Your task to perform on an android device: turn on translation in the chrome app Image 0: 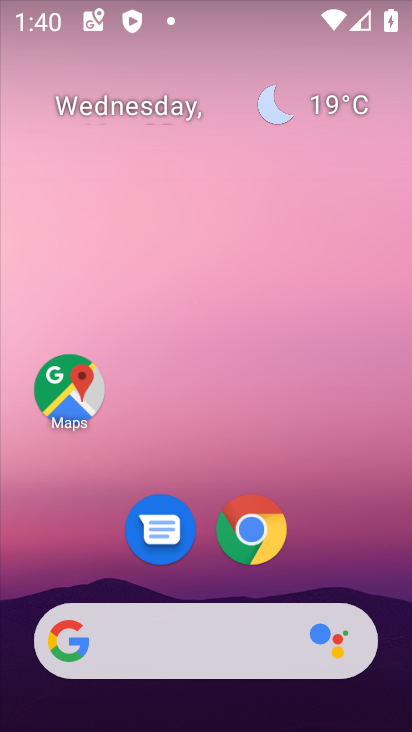
Step 0: click (207, 531)
Your task to perform on an android device: turn on translation in the chrome app Image 1: 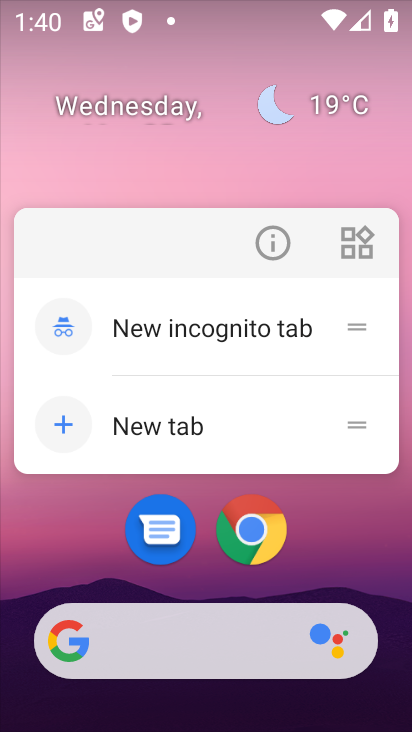
Step 1: click (239, 535)
Your task to perform on an android device: turn on translation in the chrome app Image 2: 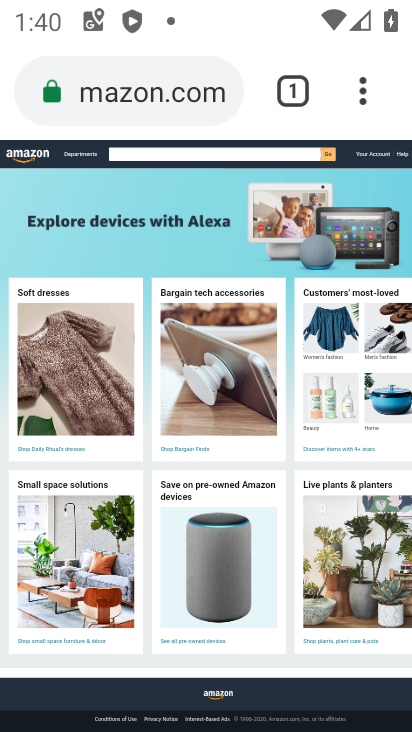
Step 2: drag from (361, 86) to (211, 590)
Your task to perform on an android device: turn on translation in the chrome app Image 3: 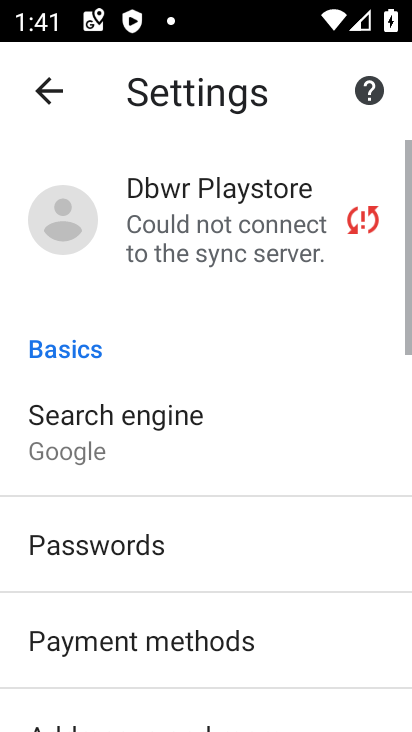
Step 3: drag from (172, 623) to (270, 196)
Your task to perform on an android device: turn on translation in the chrome app Image 4: 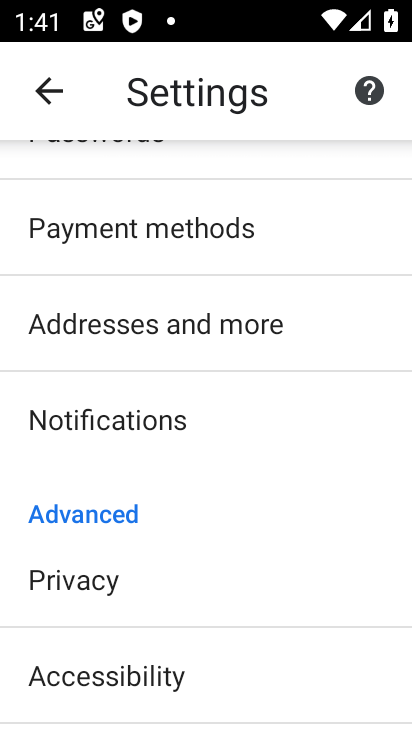
Step 4: drag from (117, 650) to (206, 308)
Your task to perform on an android device: turn on translation in the chrome app Image 5: 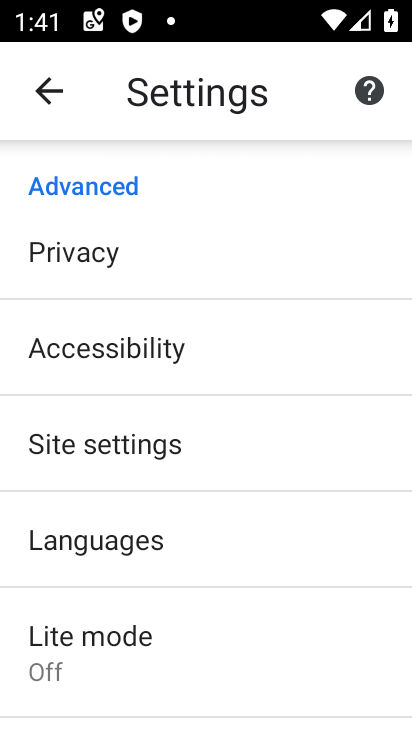
Step 5: click (176, 549)
Your task to perform on an android device: turn on translation in the chrome app Image 6: 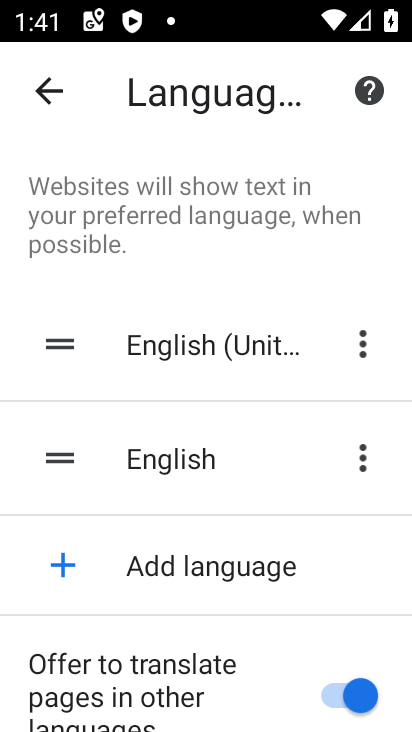
Step 6: task complete